Your task to perform on an android device: visit the assistant section in the google photos Image 0: 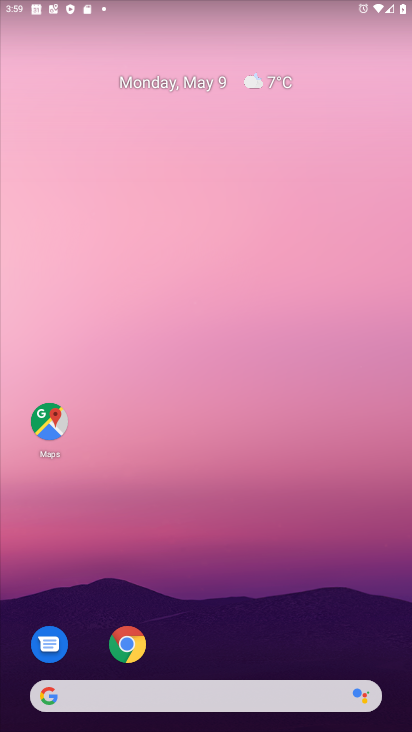
Step 0: drag from (366, 657) to (113, 47)
Your task to perform on an android device: visit the assistant section in the google photos Image 1: 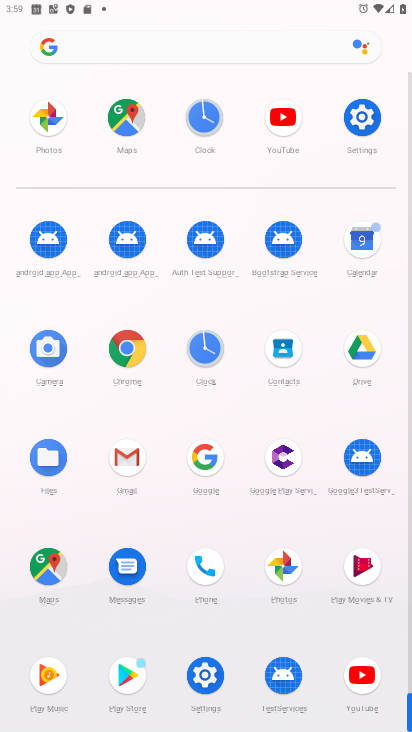
Step 1: click (278, 562)
Your task to perform on an android device: visit the assistant section in the google photos Image 2: 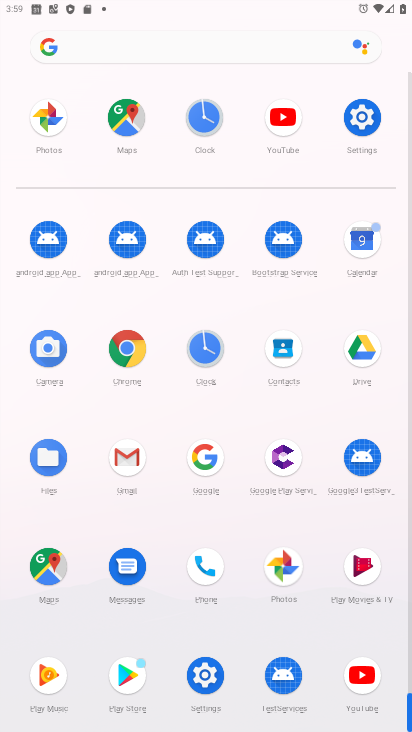
Step 2: click (278, 562)
Your task to perform on an android device: visit the assistant section in the google photos Image 3: 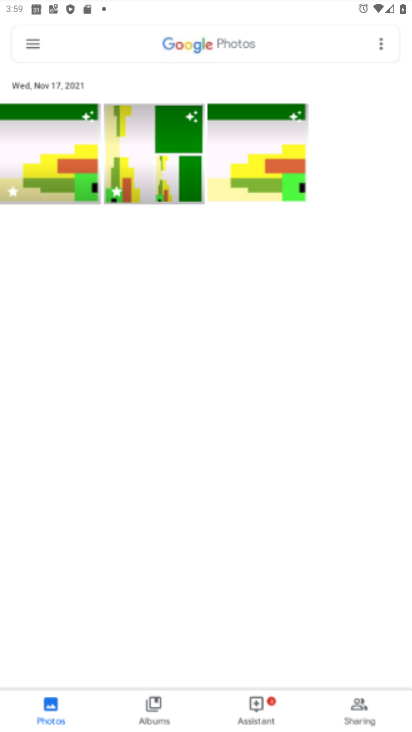
Step 3: click (278, 562)
Your task to perform on an android device: visit the assistant section in the google photos Image 4: 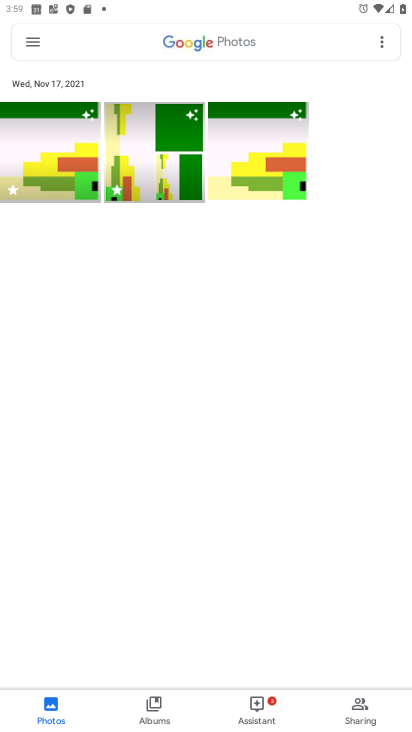
Step 4: click (278, 710)
Your task to perform on an android device: visit the assistant section in the google photos Image 5: 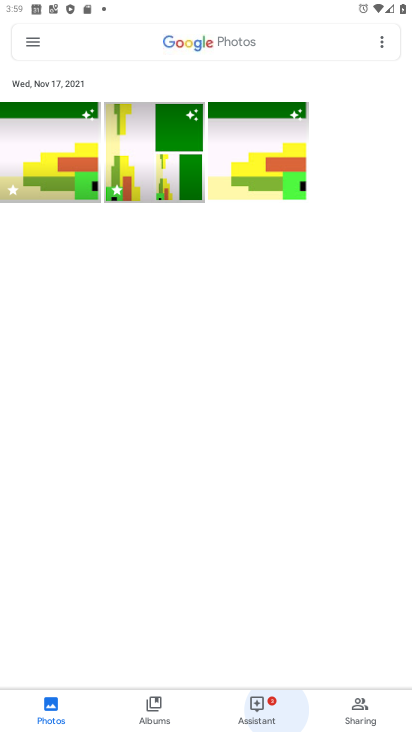
Step 5: click (277, 710)
Your task to perform on an android device: visit the assistant section in the google photos Image 6: 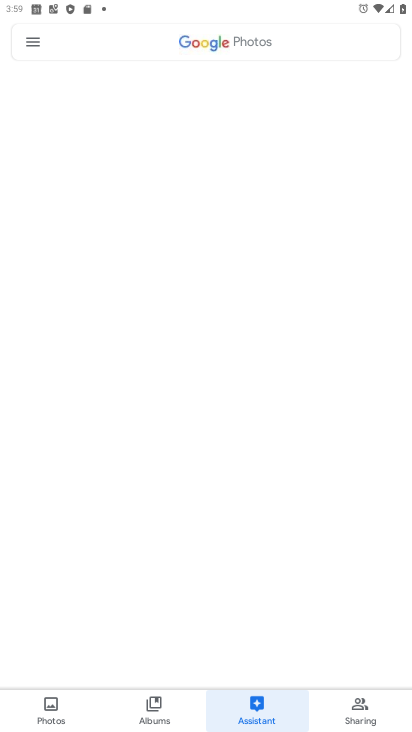
Step 6: click (274, 709)
Your task to perform on an android device: visit the assistant section in the google photos Image 7: 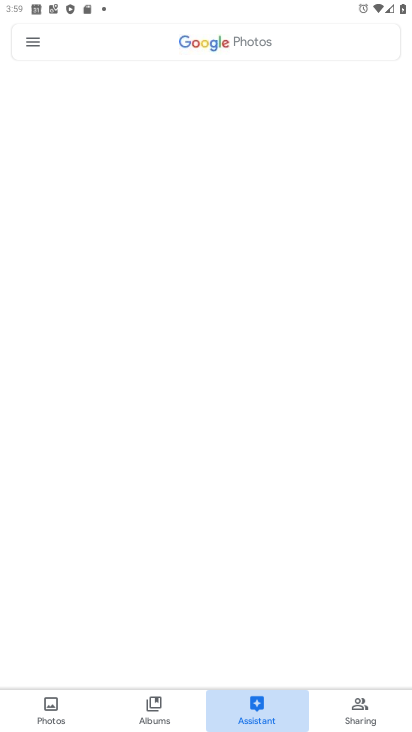
Step 7: click (272, 709)
Your task to perform on an android device: visit the assistant section in the google photos Image 8: 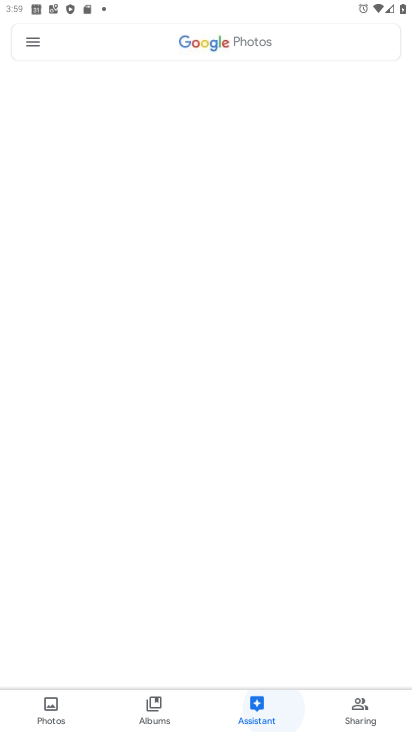
Step 8: click (270, 708)
Your task to perform on an android device: visit the assistant section in the google photos Image 9: 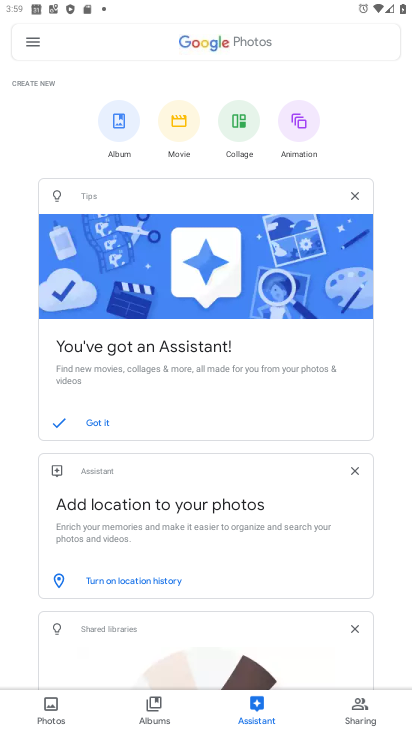
Step 9: task complete